Your task to perform on an android device: What's the weather today? Image 0: 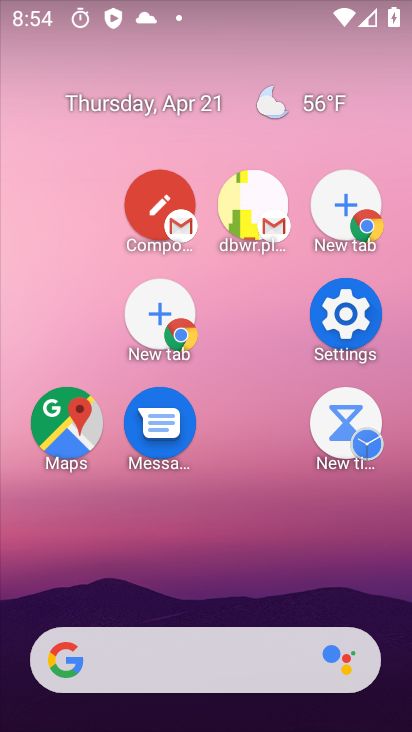
Step 0: click (208, 3)
Your task to perform on an android device: What's the weather today? Image 1: 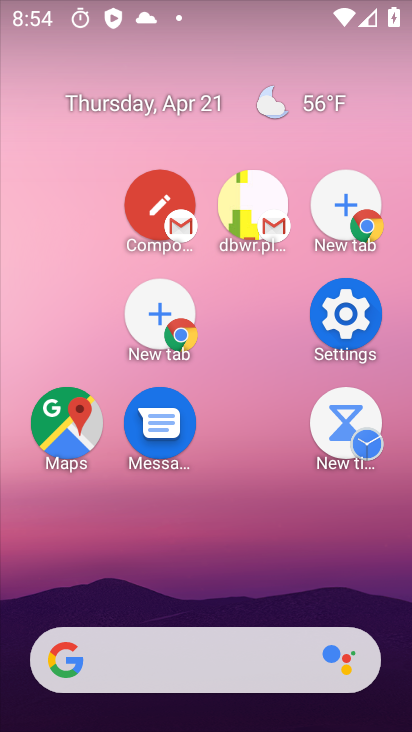
Step 1: drag from (260, 571) to (208, 175)
Your task to perform on an android device: What's the weather today? Image 2: 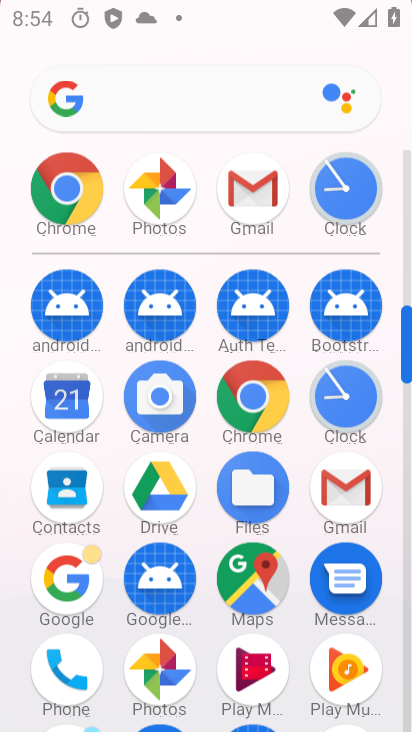
Step 2: drag from (294, 591) to (247, 139)
Your task to perform on an android device: What's the weather today? Image 3: 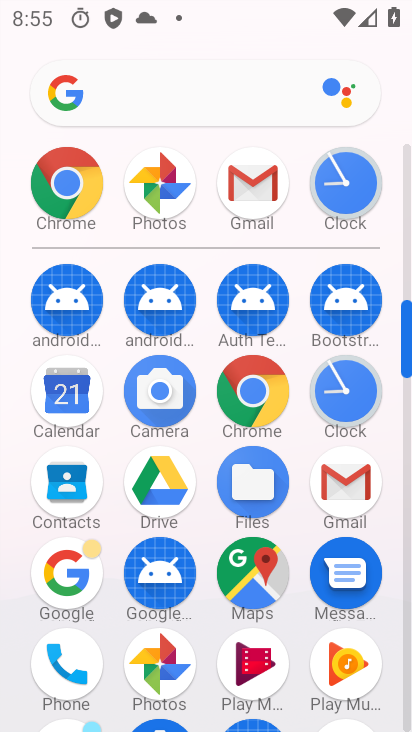
Step 3: press home button
Your task to perform on an android device: What's the weather today? Image 4: 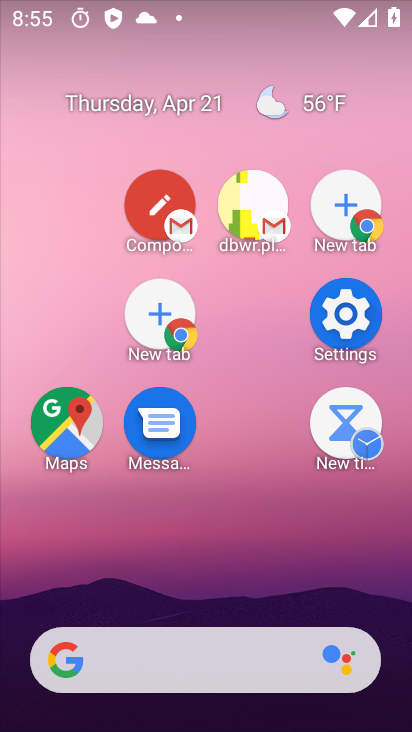
Step 4: drag from (250, 617) to (143, 266)
Your task to perform on an android device: What's the weather today? Image 5: 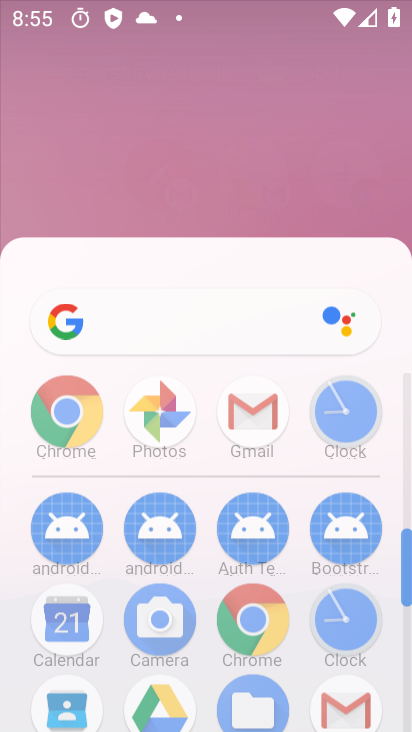
Step 5: drag from (255, 510) to (198, 123)
Your task to perform on an android device: What's the weather today? Image 6: 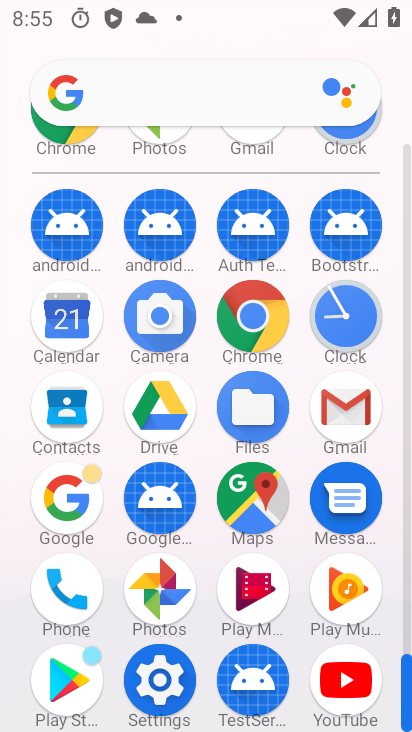
Step 6: press home button
Your task to perform on an android device: What's the weather today? Image 7: 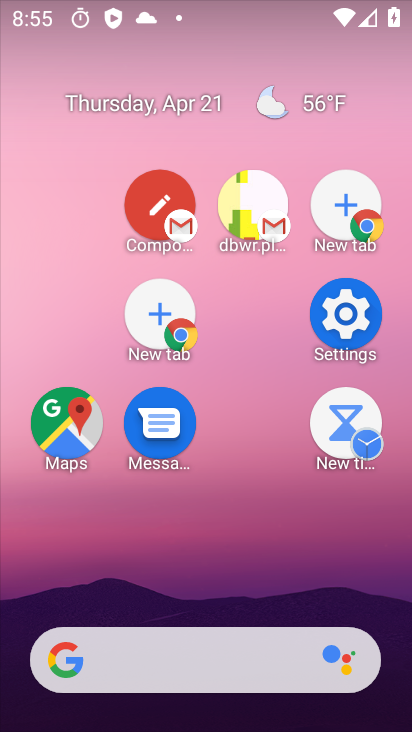
Step 7: drag from (6, 253) to (378, 306)
Your task to perform on an android device: What's the weather today? Image 8: 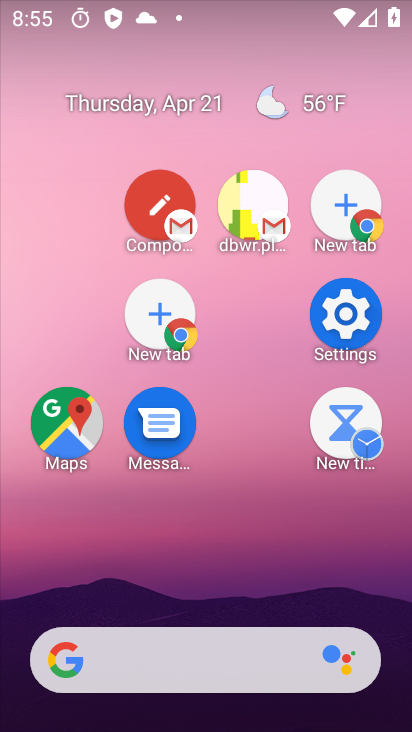
Step 8: drag from (6, 251) to (396, 362)
Your task to perform on an android device: What's the weather today? Image 9: 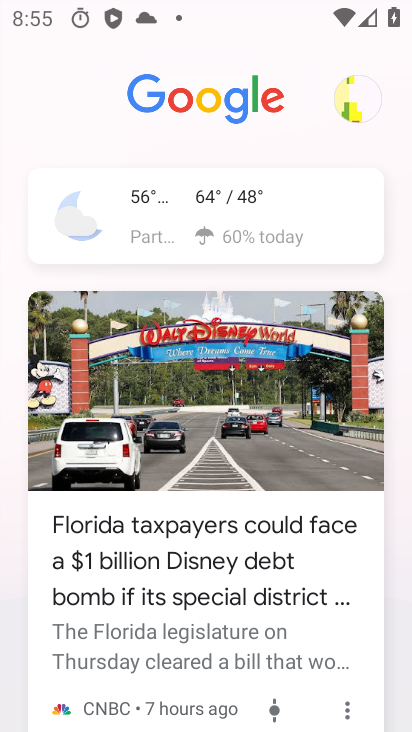
Step 9: click (212, 206)
Your task to perform on an android device: What's the weather today? Image 10: 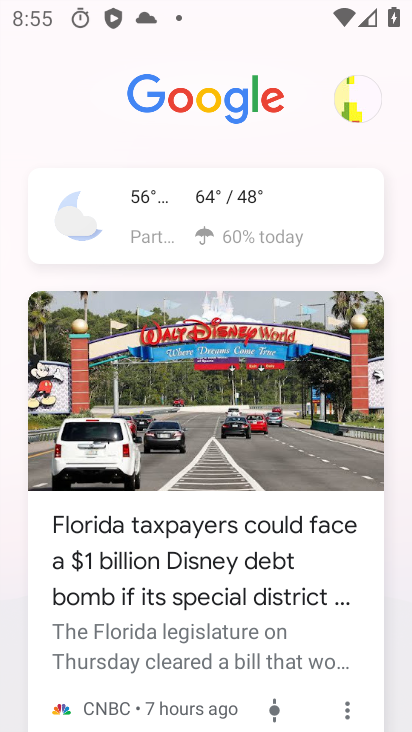
Step 10: click (212, 206)
Your task to perform on an android device: What's the weather today? Image 11: 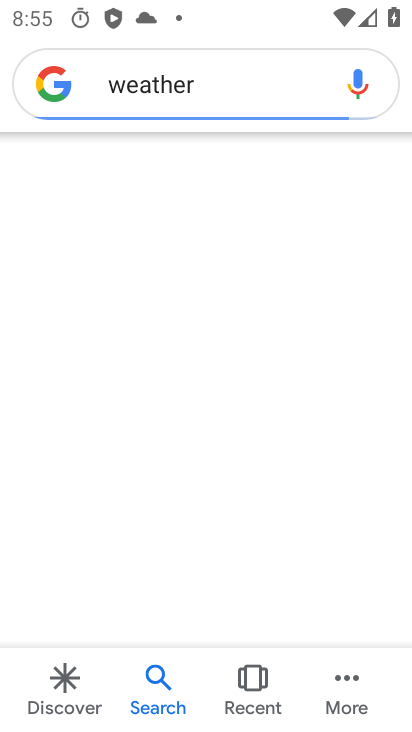
Step 11: task complete